Your task to perform on an android device: Go to privacy settings Image 0: 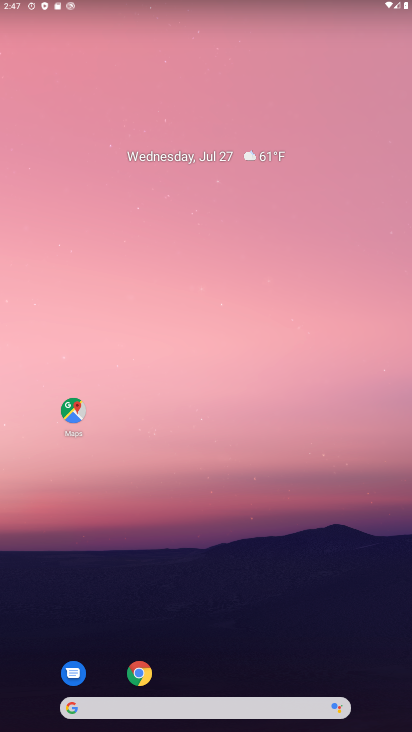
Step 0: drag from (46, 613) to (210, 134)
Your task to perform on an android device: Go to privacy settings Image 1: 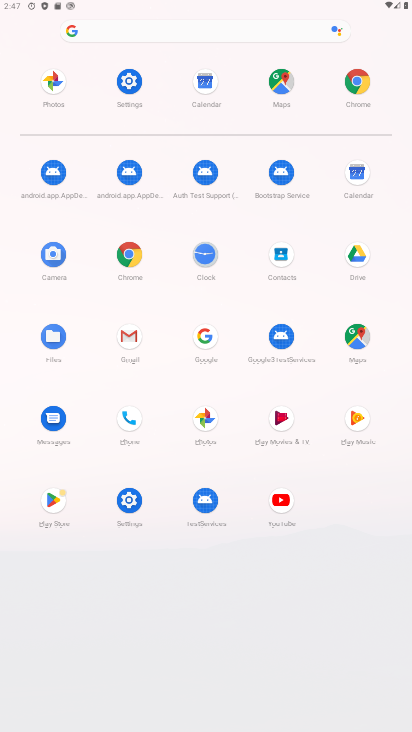
Step 1: click (122, 501)
Your task to perform on an android device: Go to privacy settings Image 2: 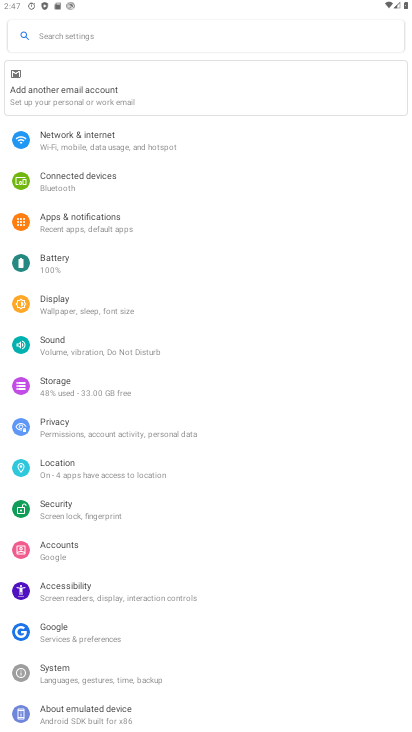
Step 2: click (60, 430)
Your task to perform on an android device: Go to privacy settings Image 3: 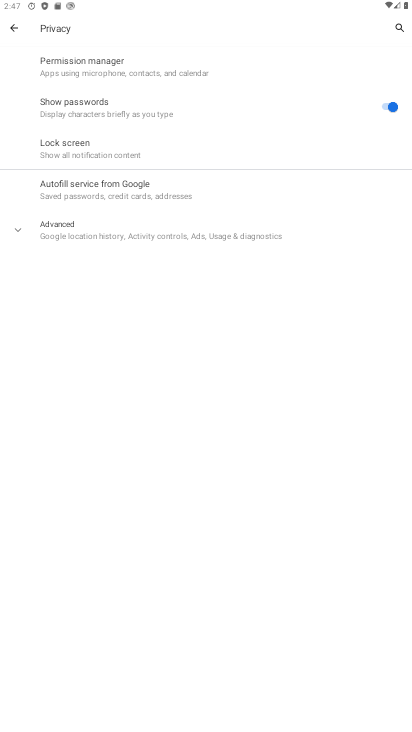
Step 3: task complete